Your task to perform on an android device: set the stopwatch Image 0: 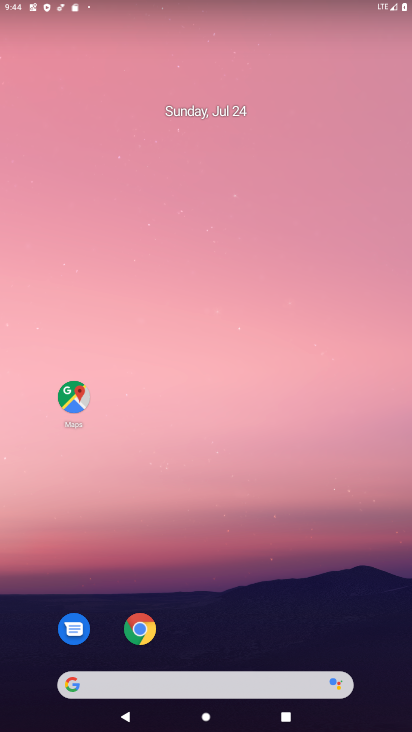
Step 0: press home button
Your task to perform on an android device: set the stopwatch Image 1: 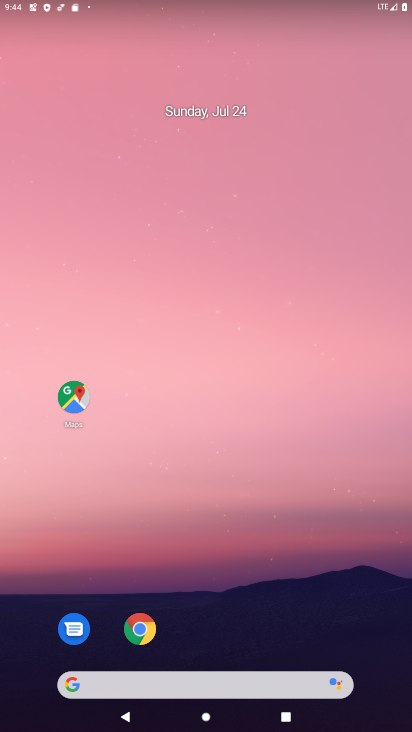
Step 1: drag from (280, 589) to (282, 22)
Your task to perform on an android device: set the stopwatch Image 2: 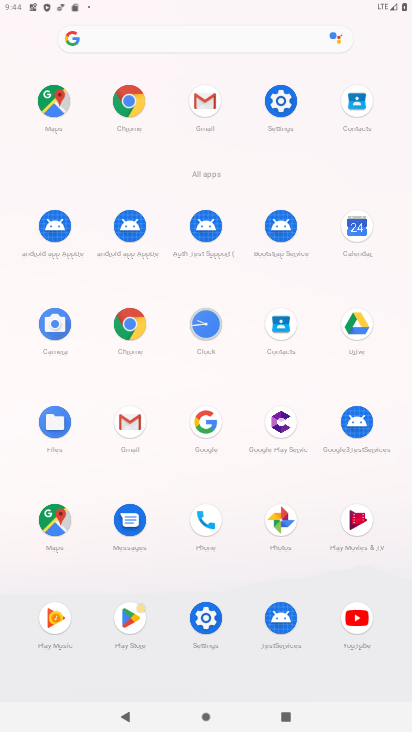
Step 2: click (197, 317)
Your task to perform on an android device: set the stopwatch Image 3: 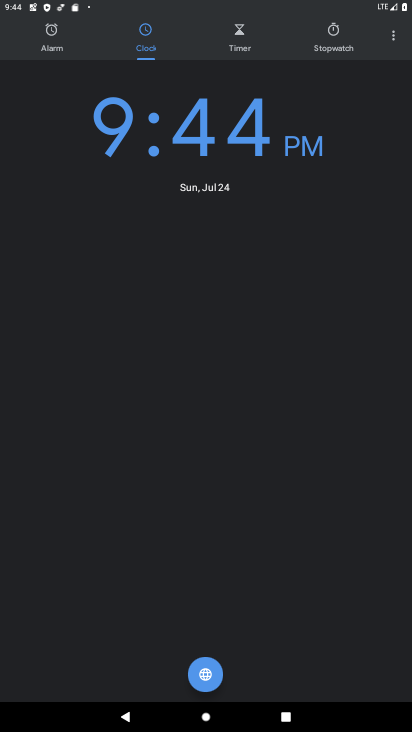
Step 3: click (341, 33)
Your task to perform on an android device: set the stopwatch Image 4: 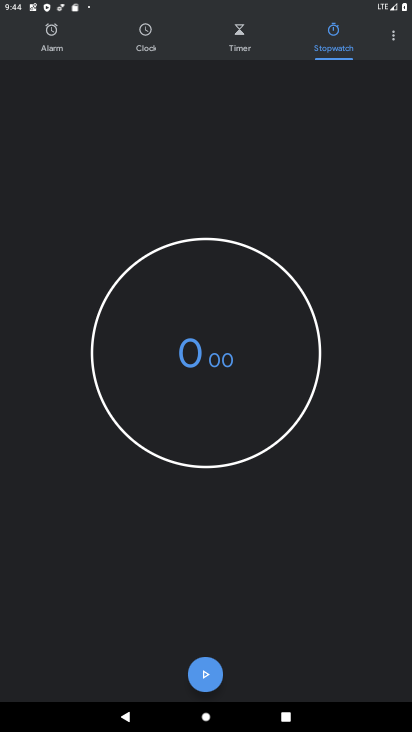
Step 4: click (208, 661)
Your task to perform on an android device: set the stopwatch Image 5: 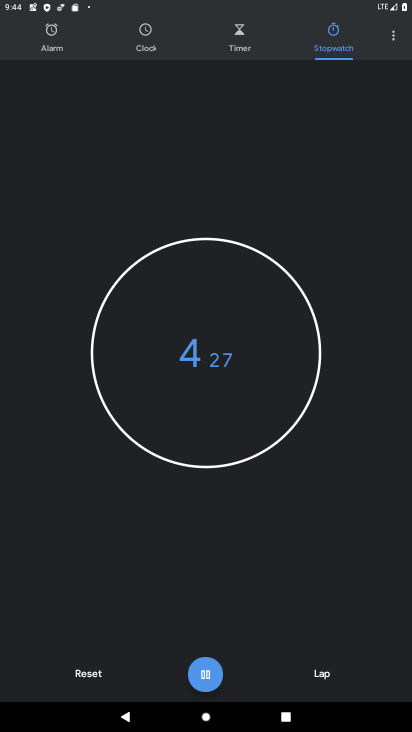
Step 5: click (208, 678)
Your task to perform on an android device: set the stopwatch Image 6: 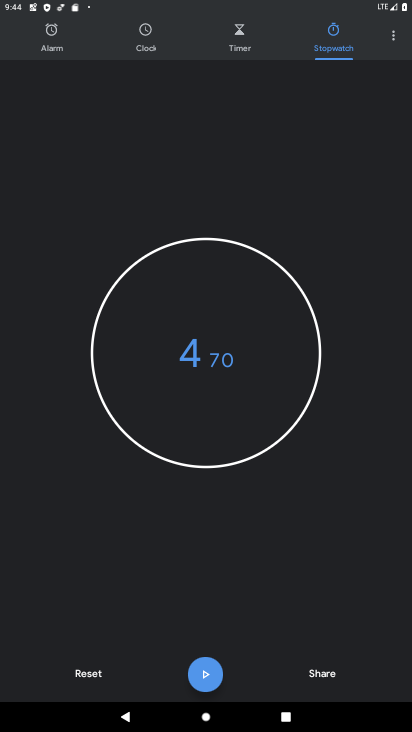
Step 6: task complete